Your task to perform on an android device: Go to battery settings Image 0: 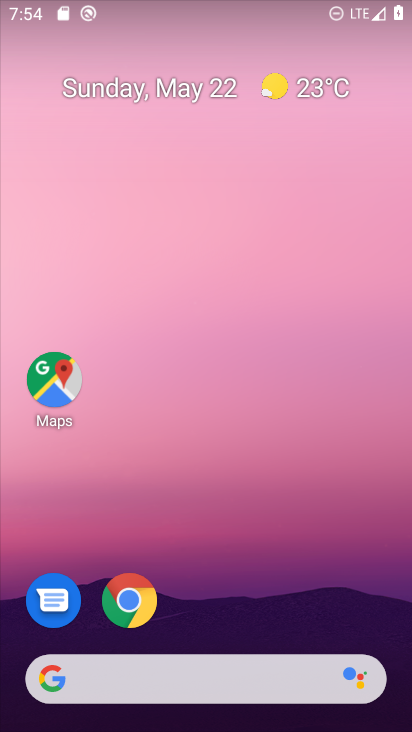
Step 0: drag from (357, 623) to (323, 31)
Your task to perform on an android device: Go to battery settings Image 1: 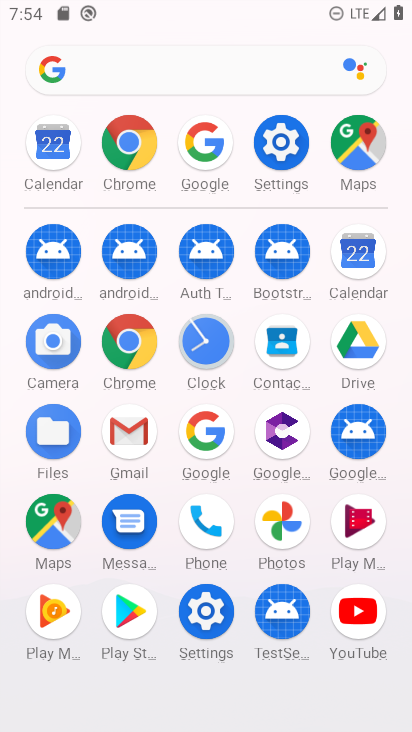
Step 1: click (268, 167)
Your task to perform on an android device: Go to battery settings Image 2: 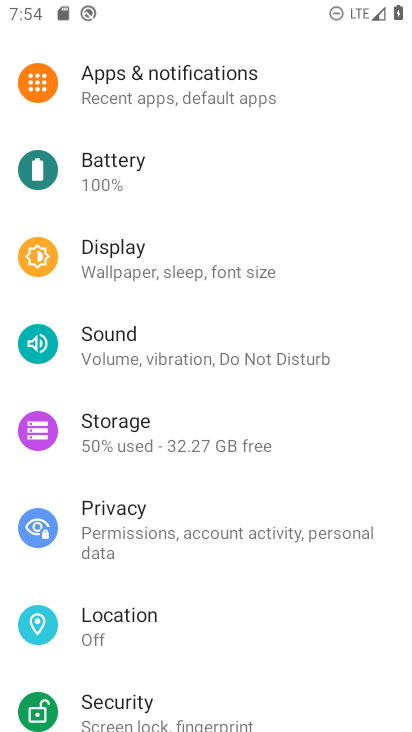
Step 2: click (138, 171)
Your task to perform on an android device: Go to battery settings Image 3: 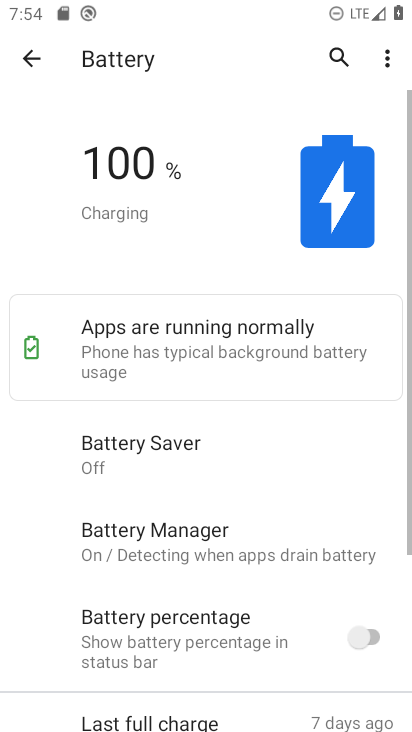
Step 3: task complete